Your task to perform on an android device: Show me popular games on the Play Store Image 0: 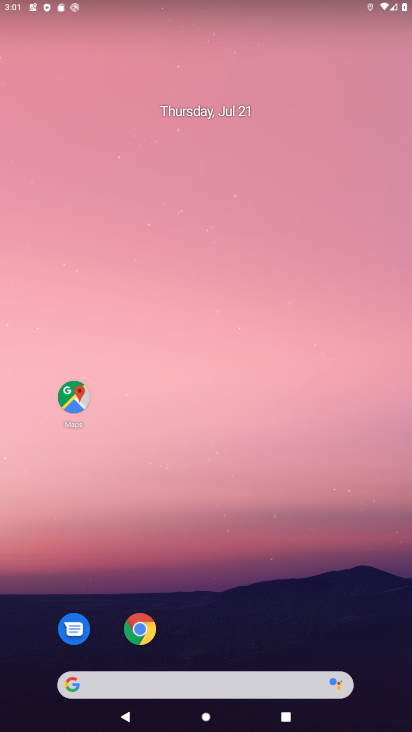
Step 0: drag from (252, 645) to (324, 0)
Your task to perform on an android device: Show me popular games on the Play Store Image 1: 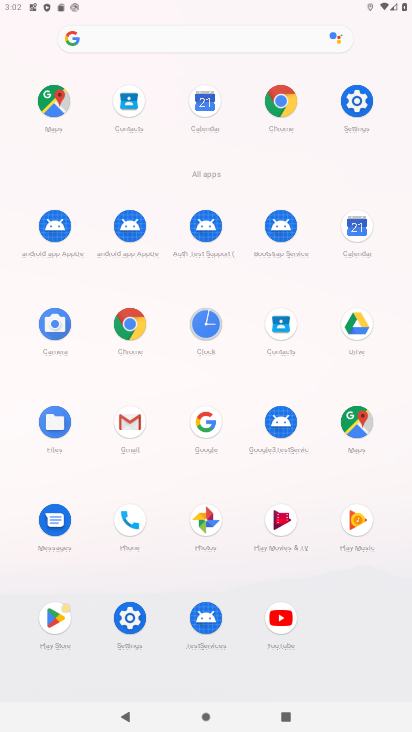
Step 1: click (56, 624)
Your task to perform on an android device: Show me popular games on the Play Store Image 2: 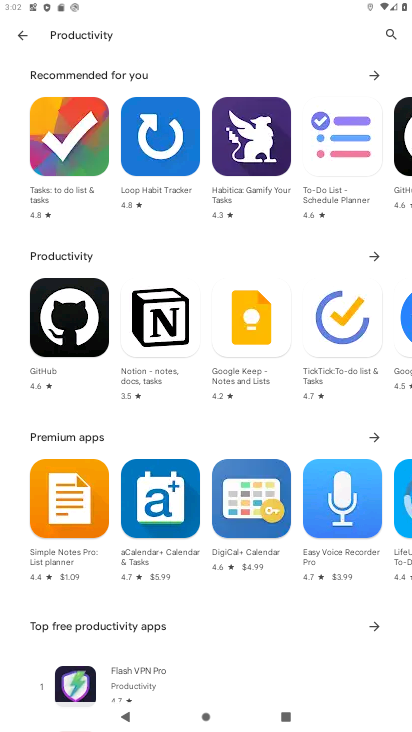
Step 2: click (22, 29)
Your task to perform on an android device: Show me popular games on the Play Store Image 3: 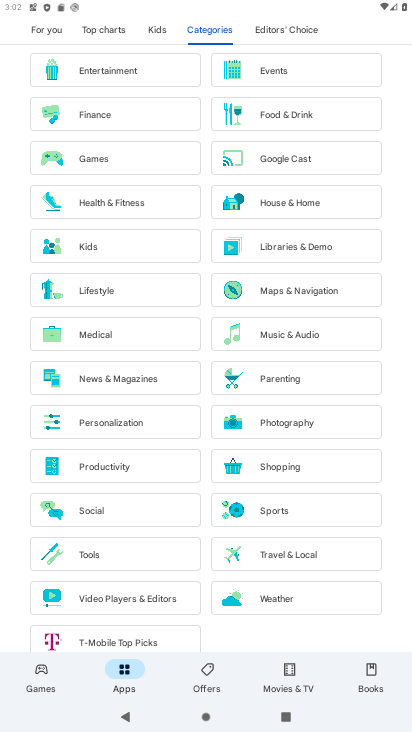
Step 3: click (40, 695)
Your task to perform on an android device: Show me popular games on the Play Store Image 4: 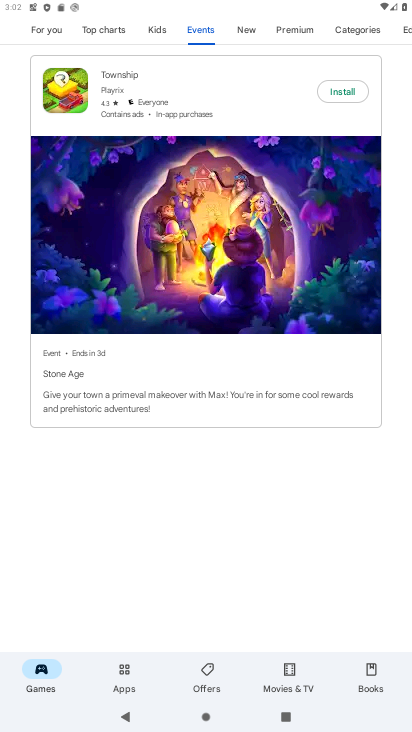
Step 4: click (108, 29)
Your task to perform on an android device: Show me popular games on the Play Store Image 5: 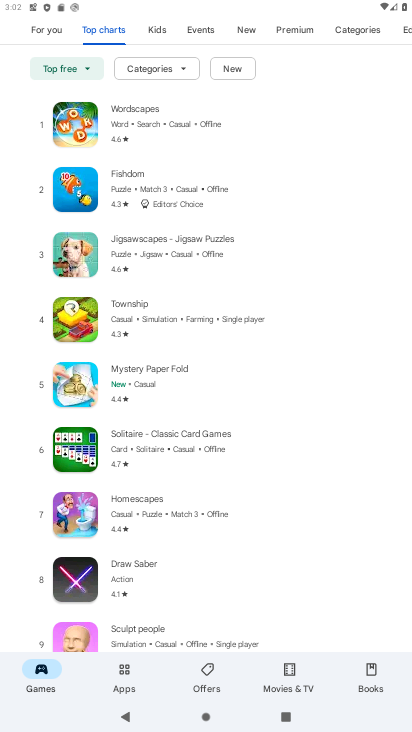
Step 5: task complete